Your task to perform on an android device: set the stopwatch Image 0: 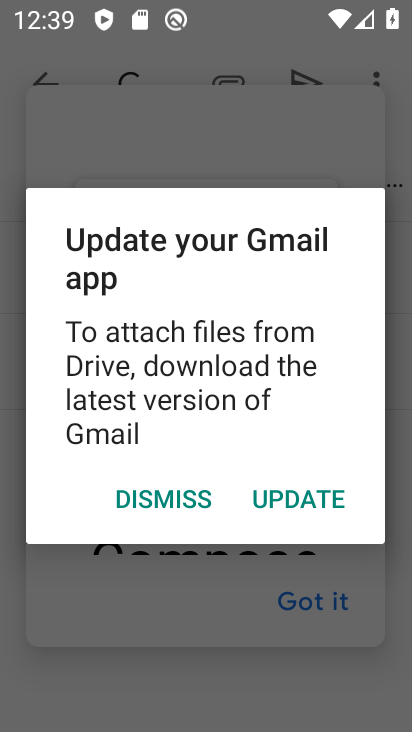
Step 0: press home button
Your task to perform on an android device: set the stopwatch Image 1: 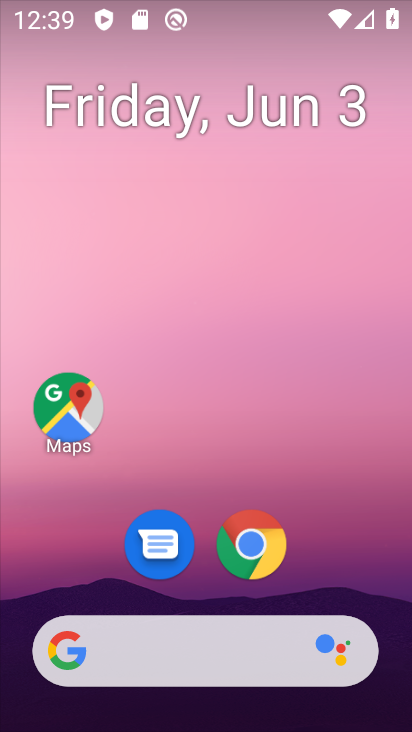
Step 1: drag from (327, 569) to (319, 1)
Your task to perform on an android device: set the stopwatch Image 2: 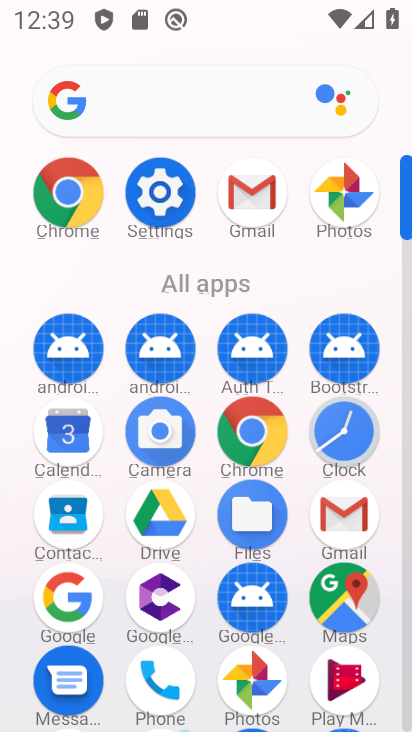
Step 2: click (348, 423)
Your task to perform on an android device: set the stopwatch Image 3: 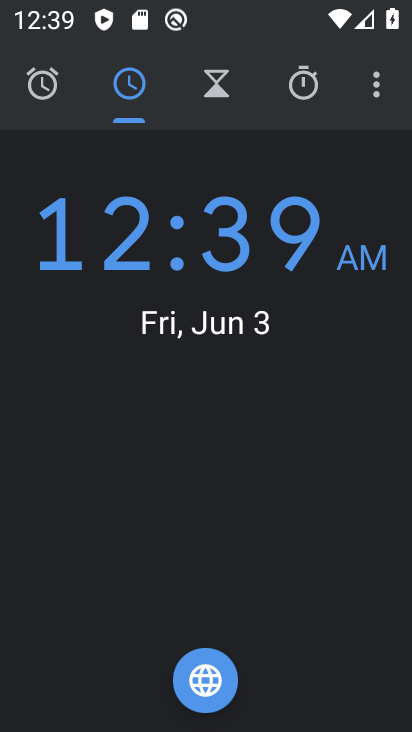
Step 3: click (301, 93)
Your task to perform on an android device: set the stopwatch Image 4: 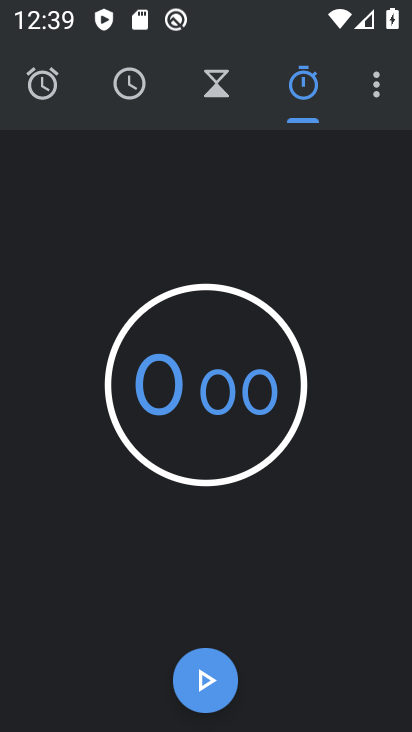
Step 4: click (201, 691)
Your task to perform on an android device: set the stopwatch Image 5: 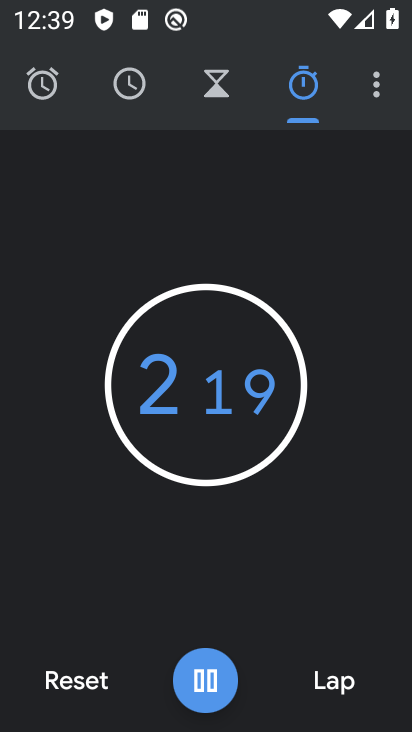
Step 5: task complete